Your task to perform on an android device: change text size in settings app Image 0: 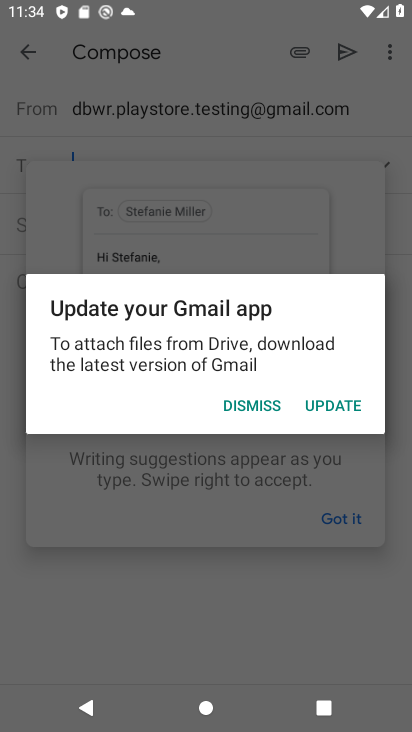
Step 0: press home button
Your task to perform on an android device: change text size in settings app Image 1: 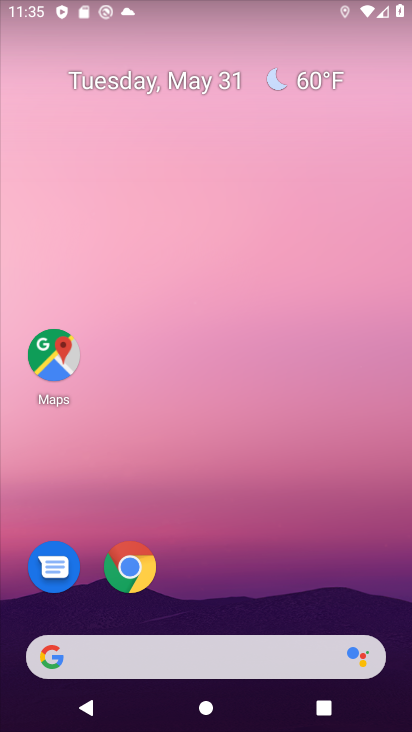
Step 1: drag from (208, 637) to (217, 42)
Your task to perform on an android device: change text size in settings app Image 2: 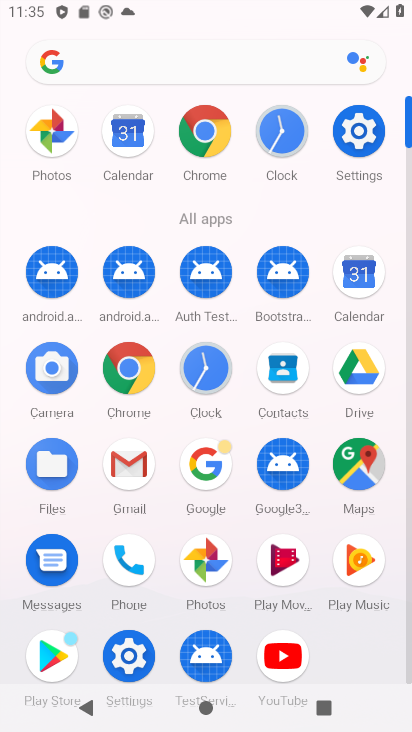
Step 2: click (342, 137)
Your task to perform on an android device: change text size in settings app Image 3: 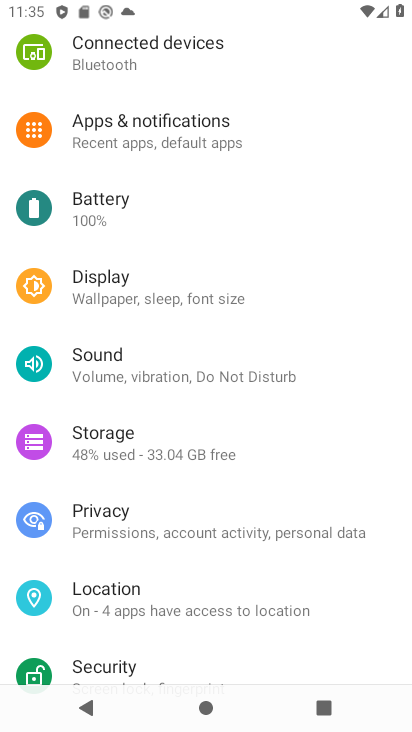
Step 3: click (113, 294)
Your task to perform on an android device: change text size in settings app Image 4: 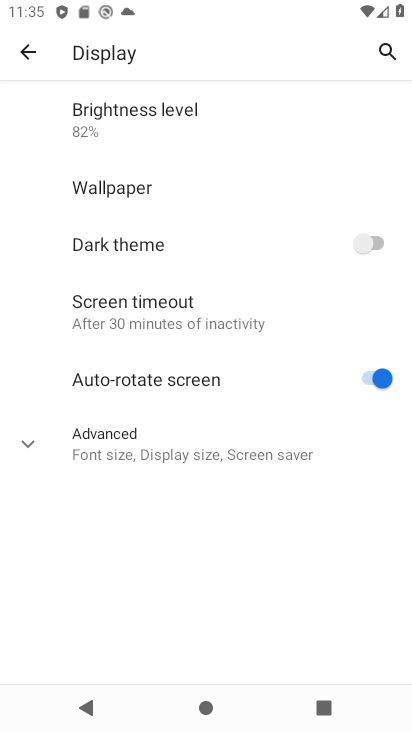
Step 4: click (124, 446)
Your task to perform on an android device: change text size in settings app Image 5: 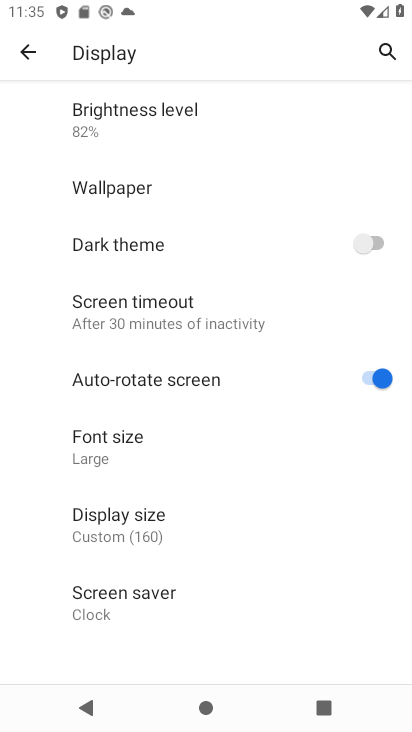
Step 5: click (123, 445)
Your task to perform on an android device: change text size in settings app Image 6: 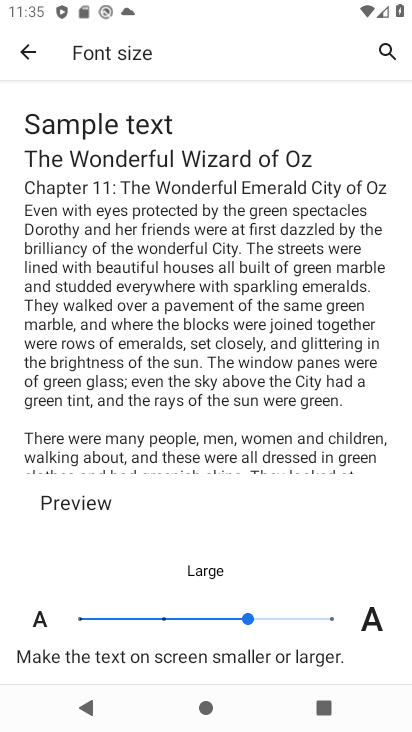
Step 6: click (158, 609)
Your task to perform on an android device: change text size in settings app Image 7: 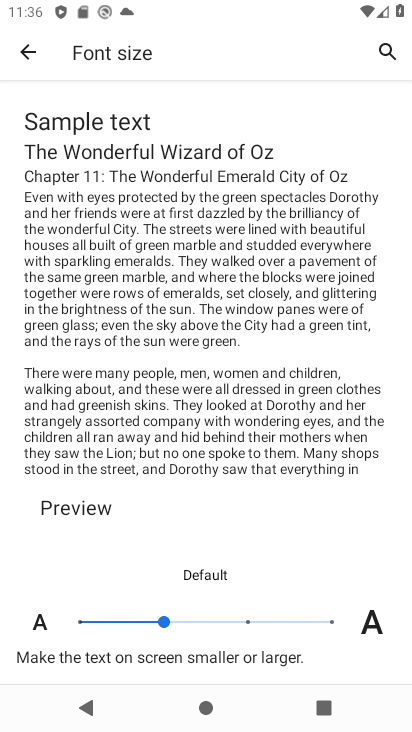
Step 7: task complete